Your task to perform on an android device: change the upload size in google photos Image 0: 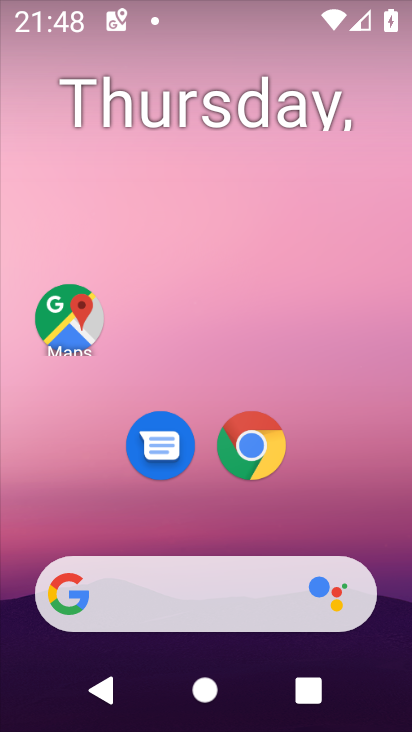
Step 0: drag from (5, 570) to (275, 139)
Your task to perform on an android device: change the upload size in google photos Image 1: 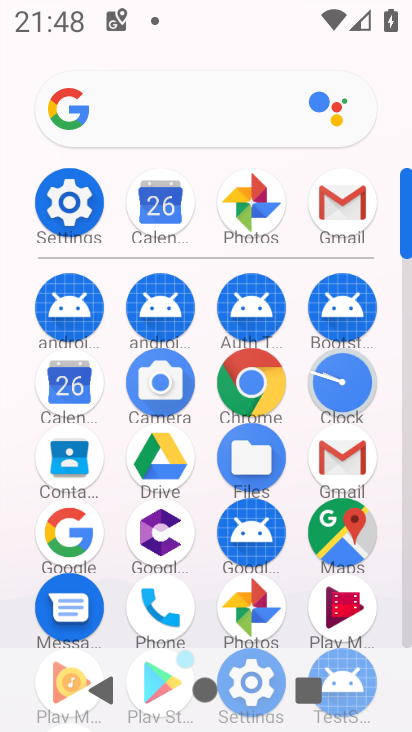
Step 1: click (236, 204)
Your task to perform on an android device: change the upload size in google photos Image 2: 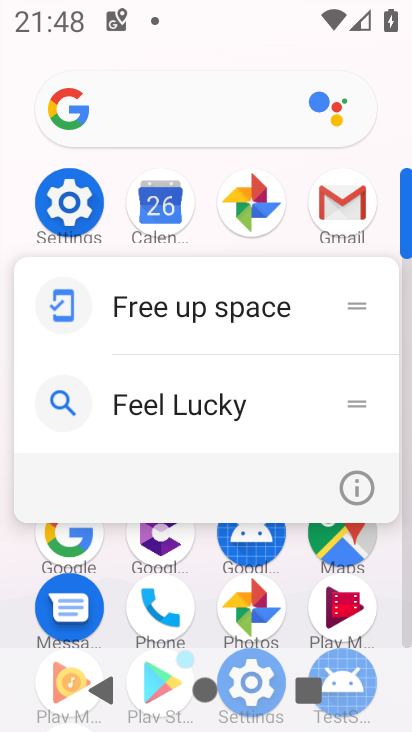
Step 2: click (237, 205)
Your task to perform on an android device: change the upload size in google photos Image 3: 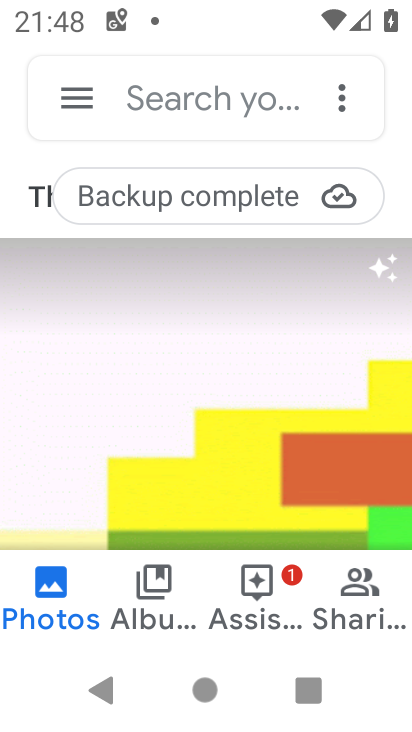
Step 3: click (82, 97)
Your task to perform on an android device: change the upload size in google photos Image 4: 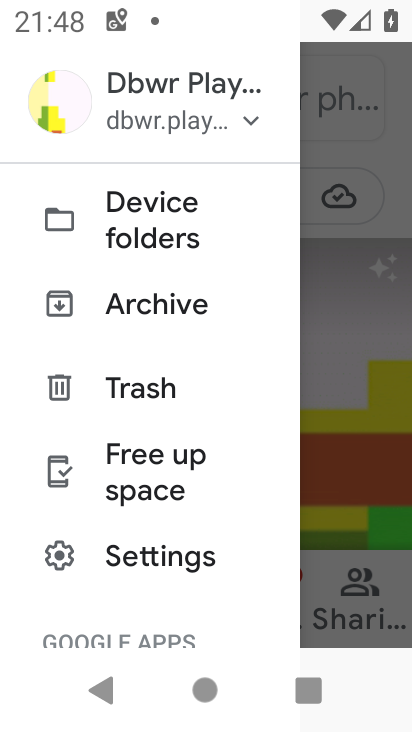
Step 4: click (116, 565)
Your task to perform on an android device: change the upload size in google photos Image 5: 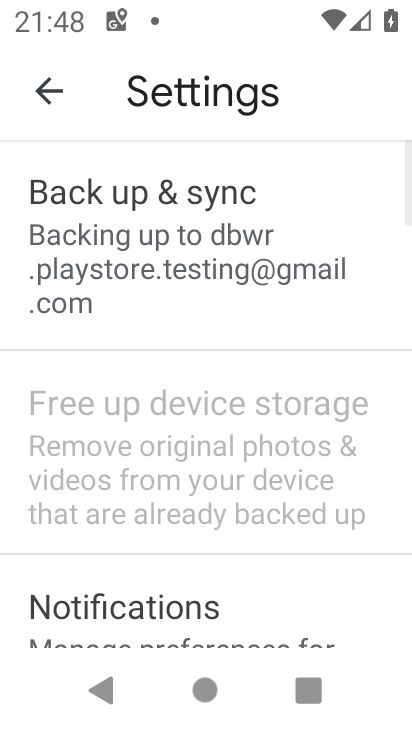
Step 5: click (156, 277)
Your task to perform on an android device: change the upload size in google photos Image 6: 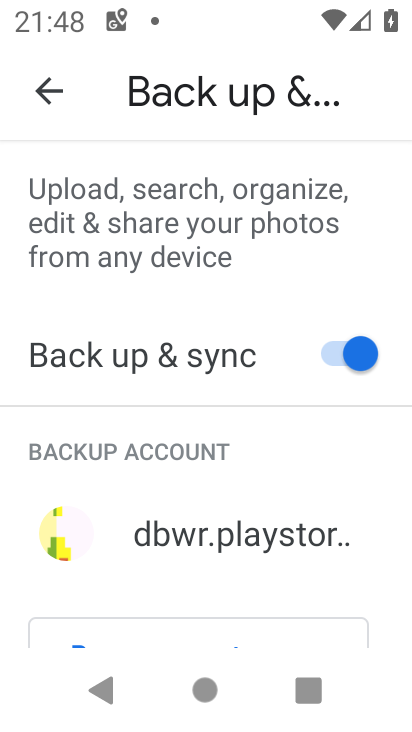
Step 6: drag from (13, 417) to (163, 114)
Your task to perform on an android device: change the upload size in google photos Image 7: 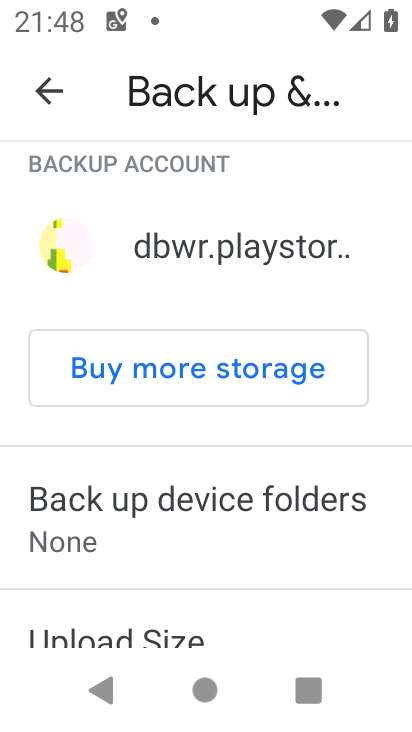
Step 7: drag from (12, 404) to (115, 215)
Your task to perform on an android device: change the upload size in google photos Image 8: 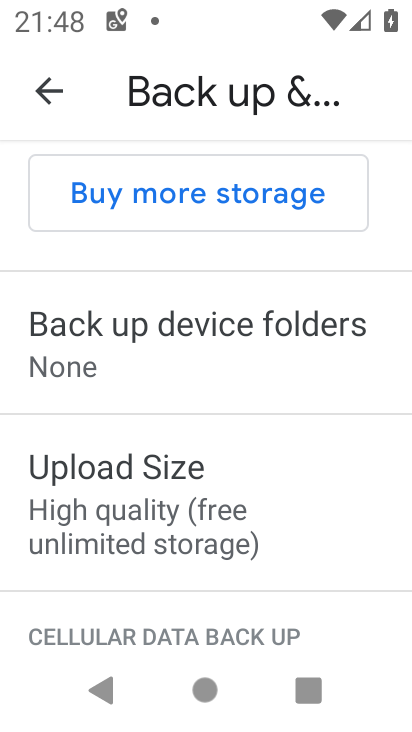
Step 8: click (89, 485)
Your task to perform on an android device: change the upload size in google photos Image 9: 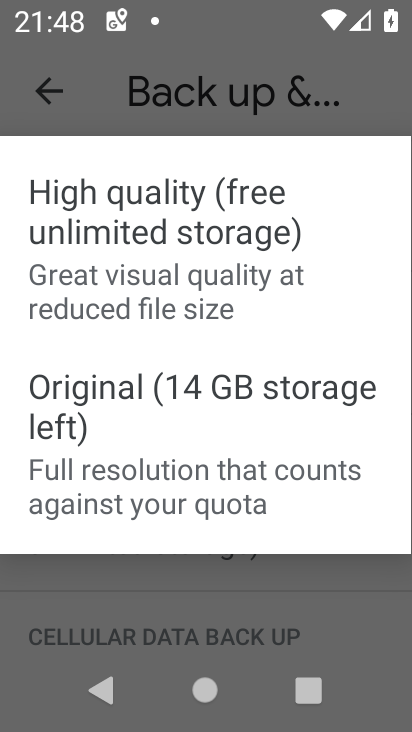
Step 9: click (102, 448)
Your task to perform on an android device: change the upload size in google photos Image 10: 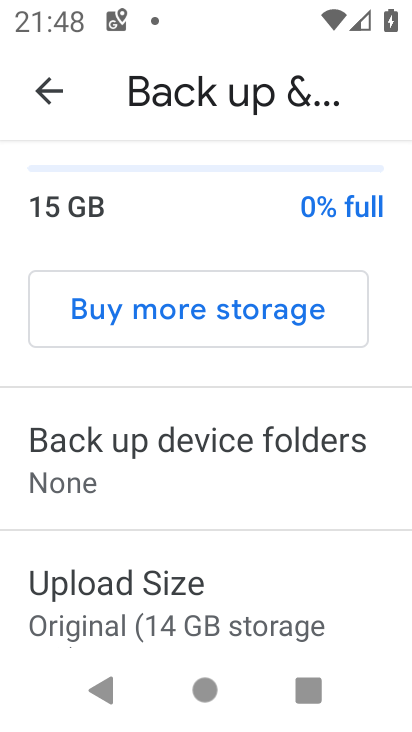
Step 10: task complete